Your task to perform on an android device: Open Google Maps Image 0: 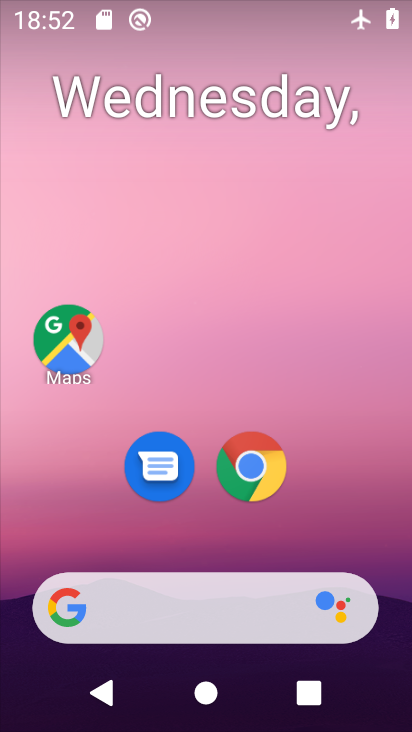
Step 0: click (59, 341)
Your task to perform on an android device: Open Google Maps Image 1: 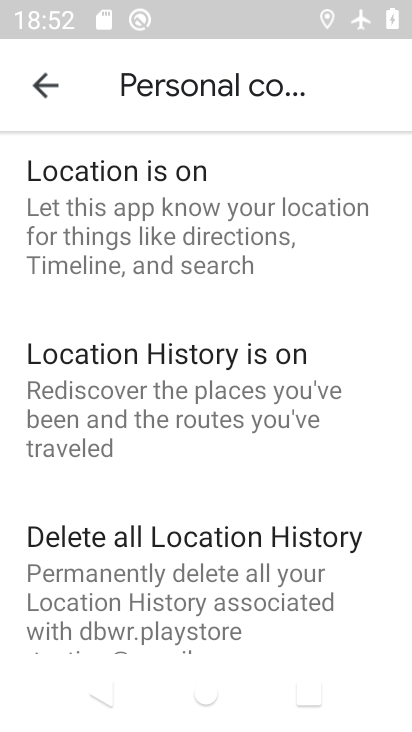
Step 1: task complete